Your task to perform on an android device: When is my next meeting? Image 0: 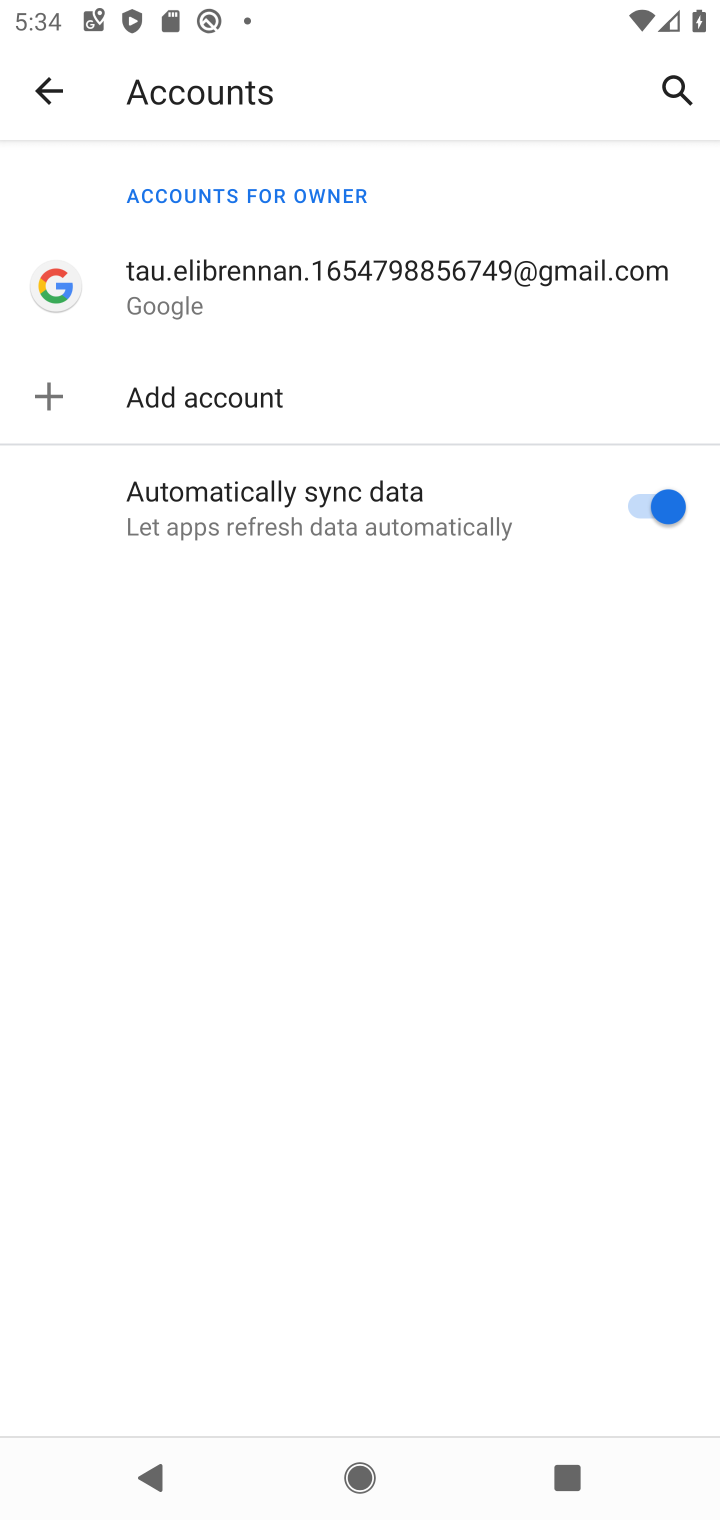
Step 0: press home button
Your task to perform on an android device: When is my next meeting? Image 1: 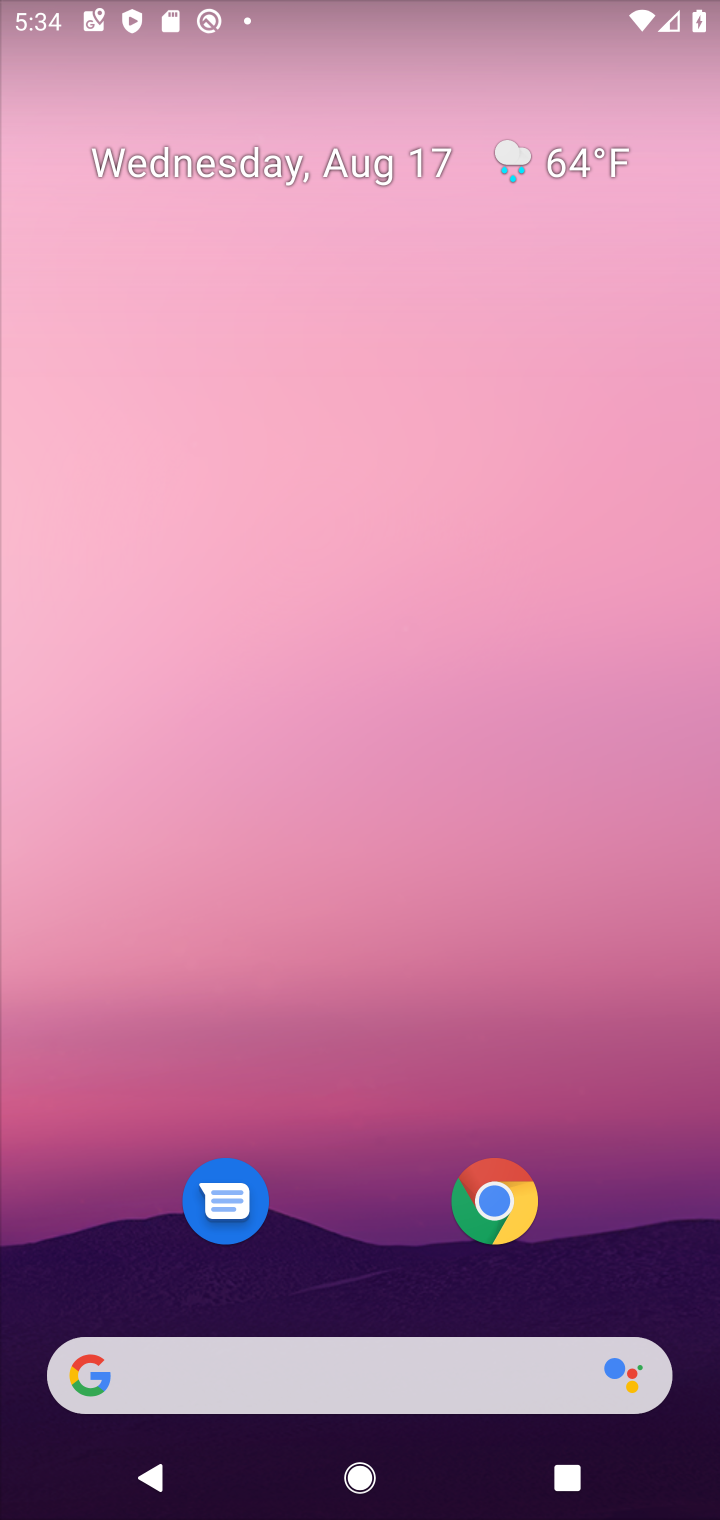
Step 1: drag from (388, 1310) to (627, 132)
Your task to perform on an android device: When is my next meeting? Image 2: 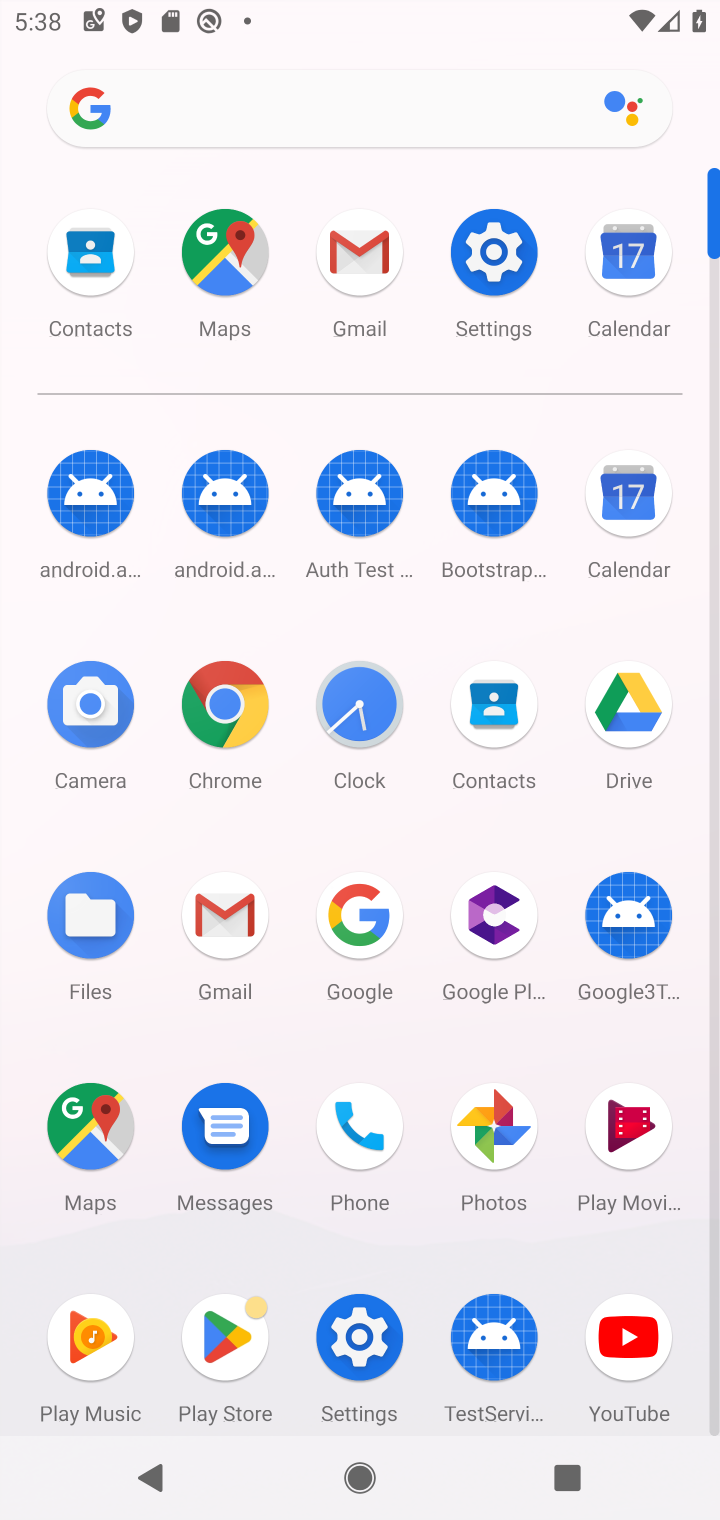
Step 2: press home button
Your task to perform on an android device: When is my next meeting? Image 3: 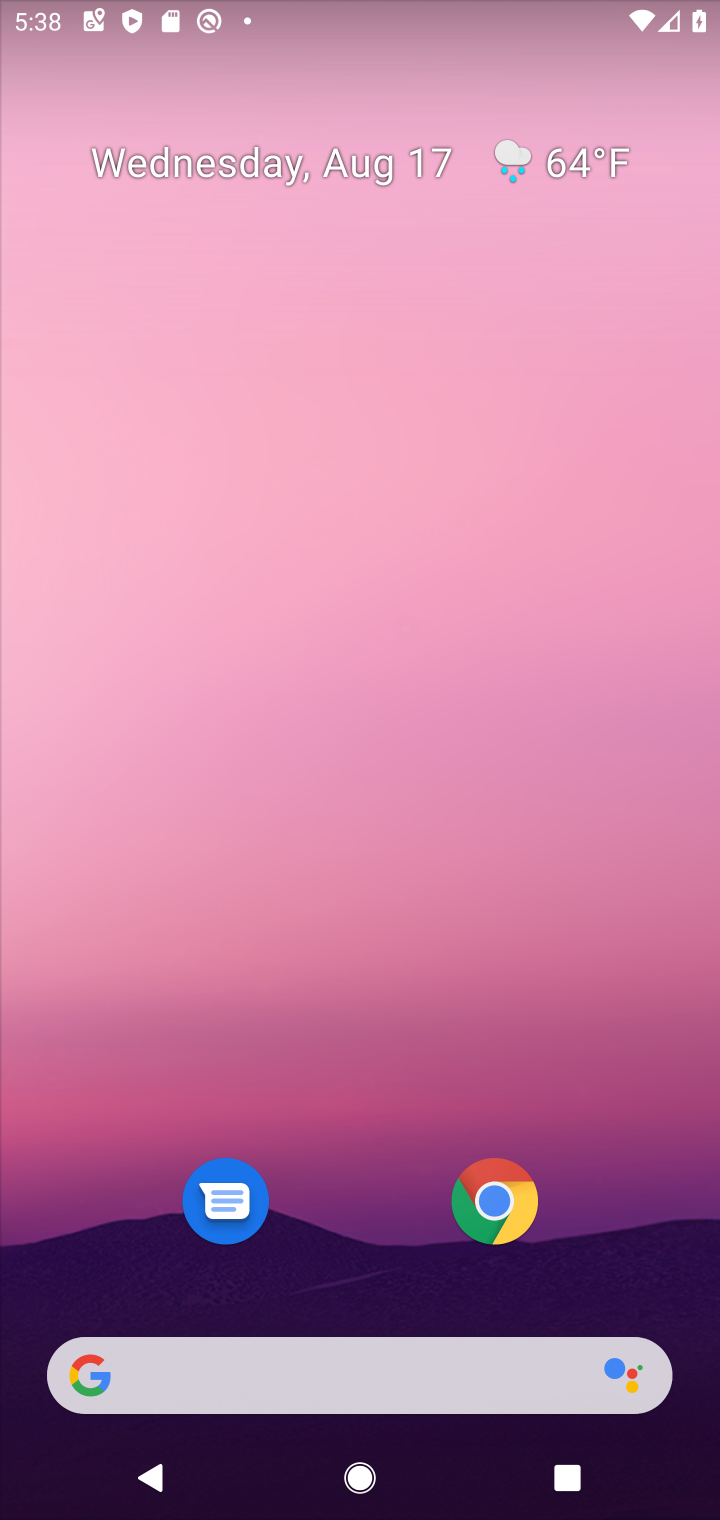
Step 3: drag from (342, 1080) to (301, 275)
Your task to perform on an android device: When is my next meeting? Image 4: 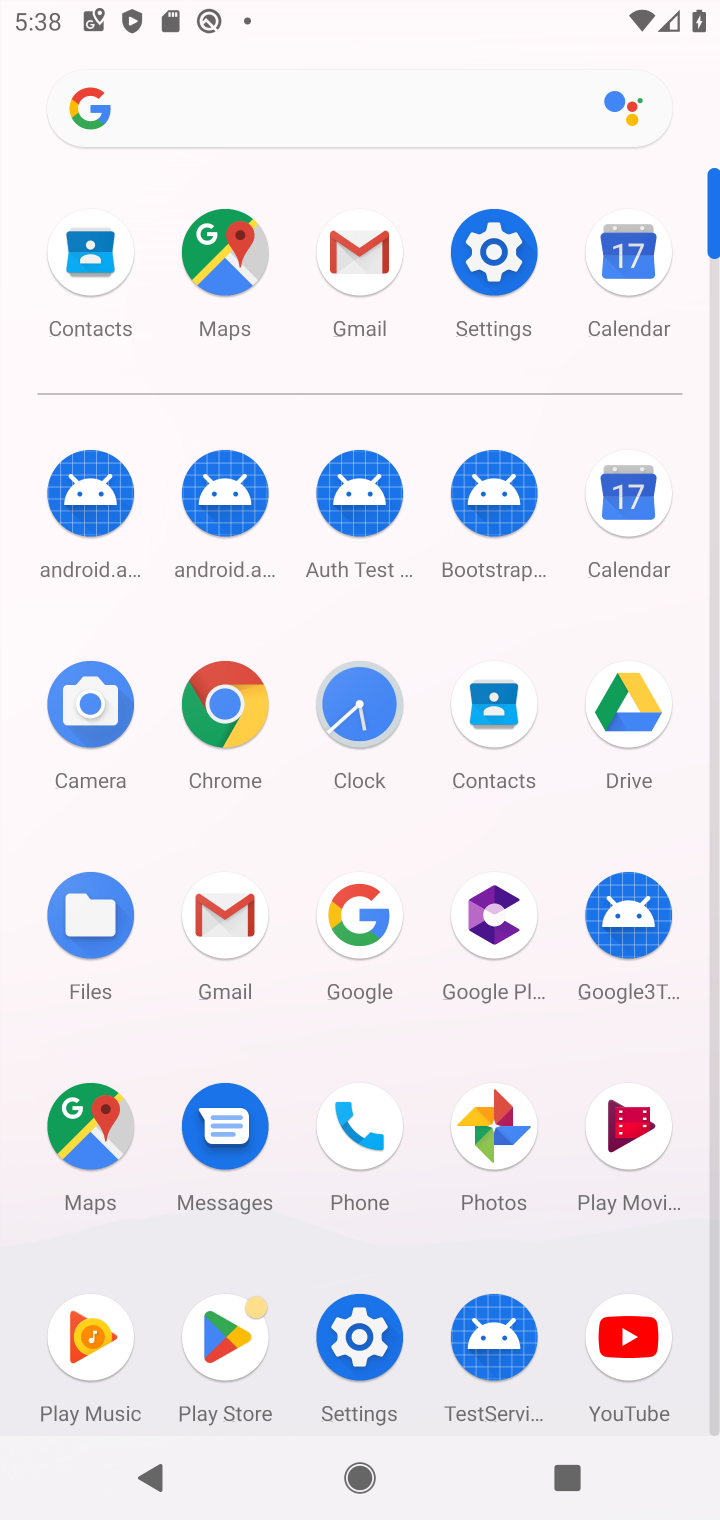
Step 4: click (625, 503)
Your task to perform on an android device: When is my next meeting? Image 5: 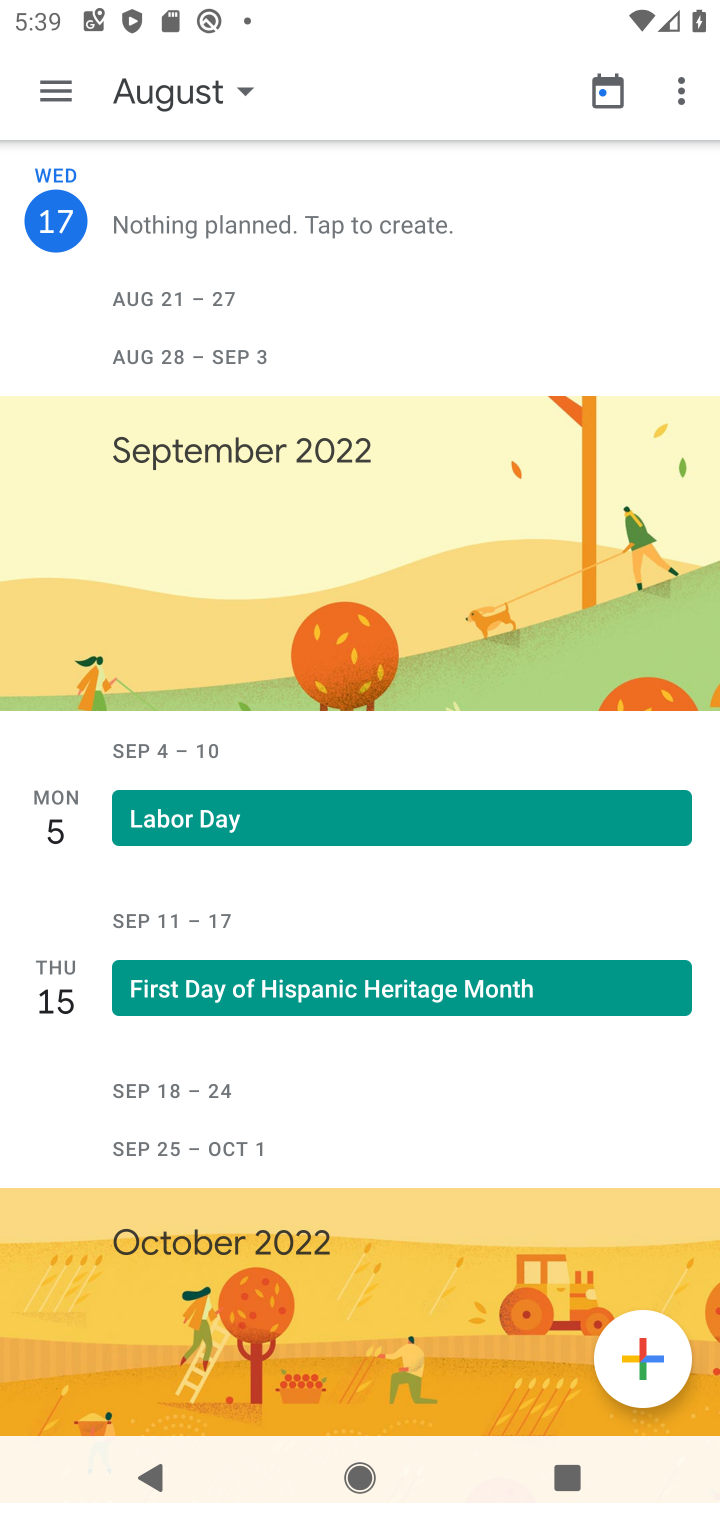
Step 5: click (50, 98)
Your task to perform on an android device: When is my next meeting? Image 6: 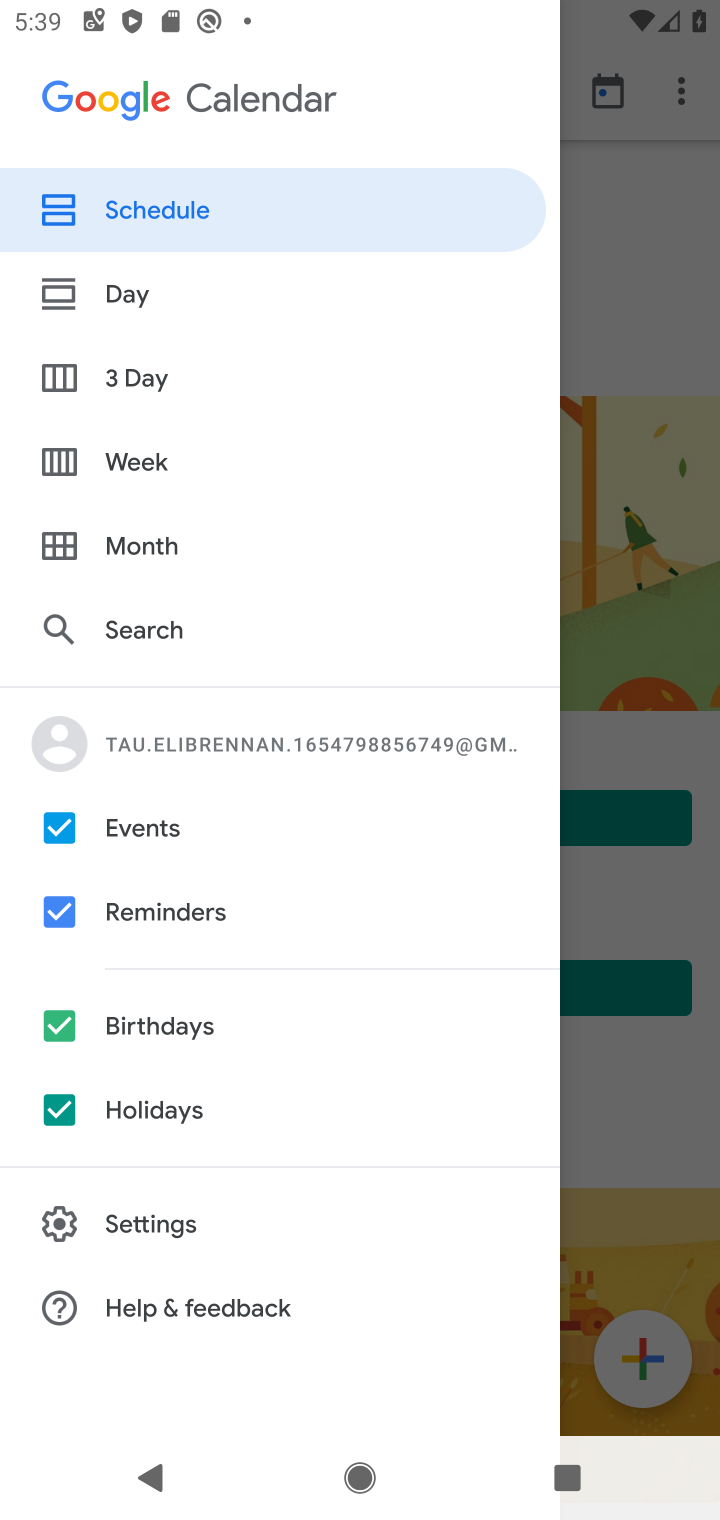
Step 6: click (136, 205)
Your task to perform on an android device: When is my next meeting? Image 7: 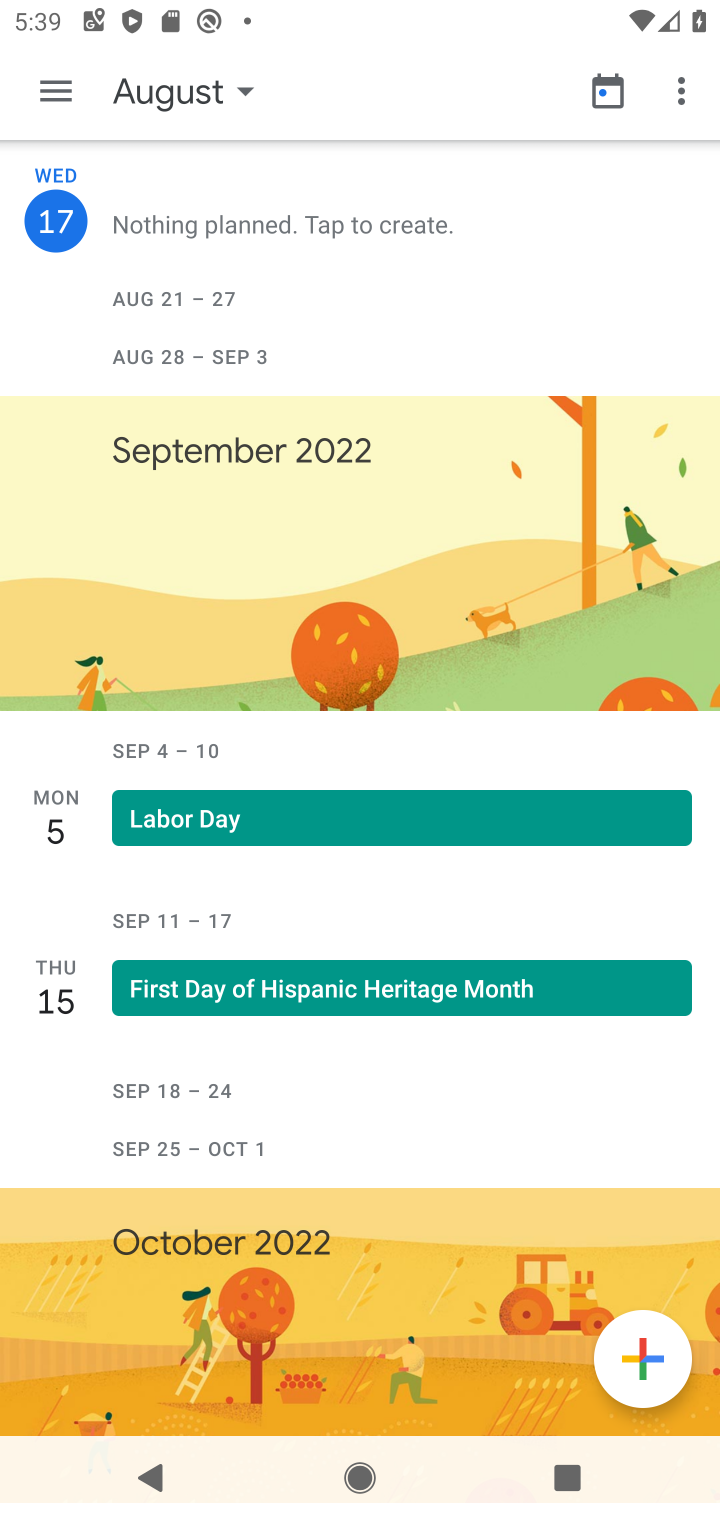
Step 7: task complete